Your task to perform on an android device: Search for pizza restaurants on Maps Image 0: 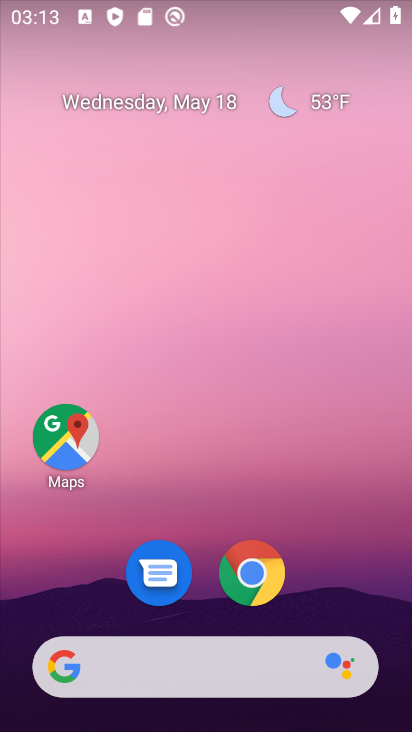
Step 0: click (65, 440)
Your task to perform on an android device: Search for pizza restaurants on Maps Image 1: 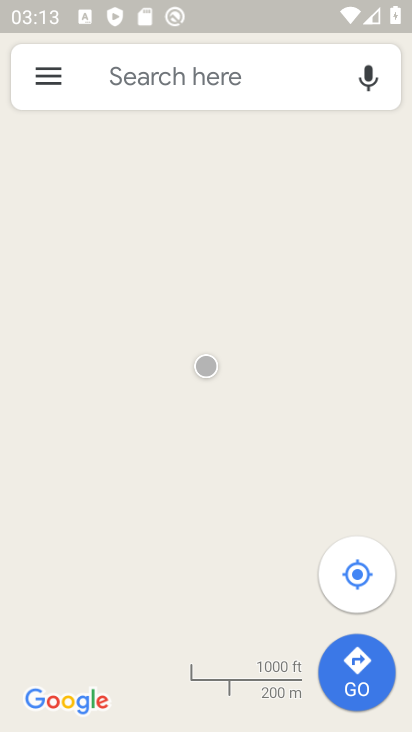
Step 1: click (195, 89)
Your task to perform on an android device: Search for pizza restaurants on Maps Image 2: 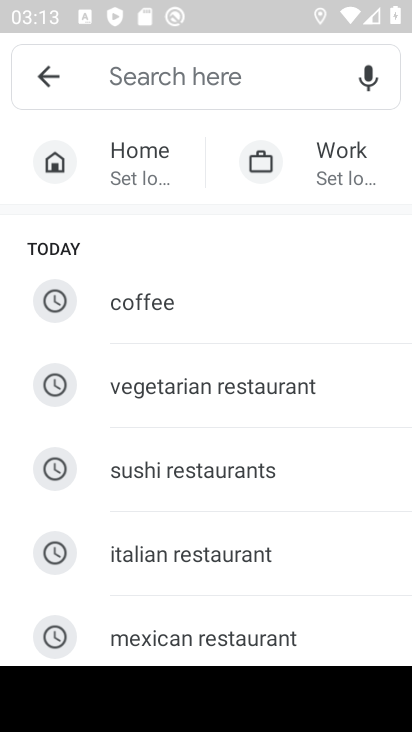
Step 2: type "pizza restaurants"
Your task to perform on an android device: Search for pizza restaurants on Maps Image 3: 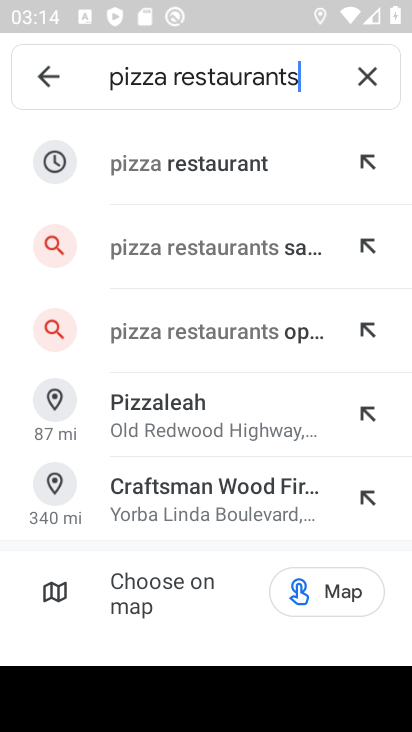
Step 3: click (192, 171)
Your task to perform on an android device: Search for pizza restaurants on Maps Image 4: 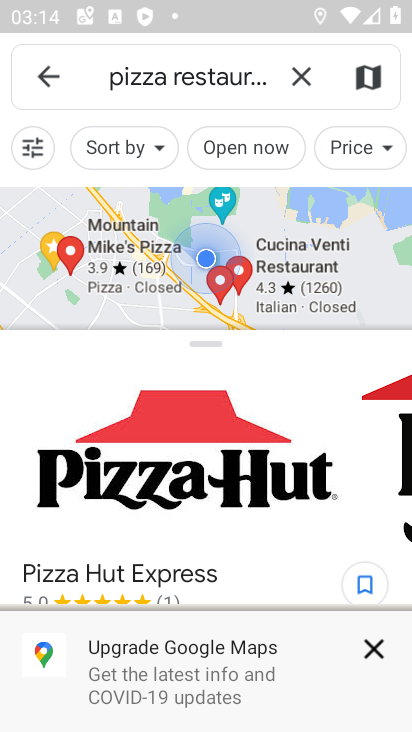
Step 4: task complete